Your task to perform on an android device: Go to network settings Image 0: 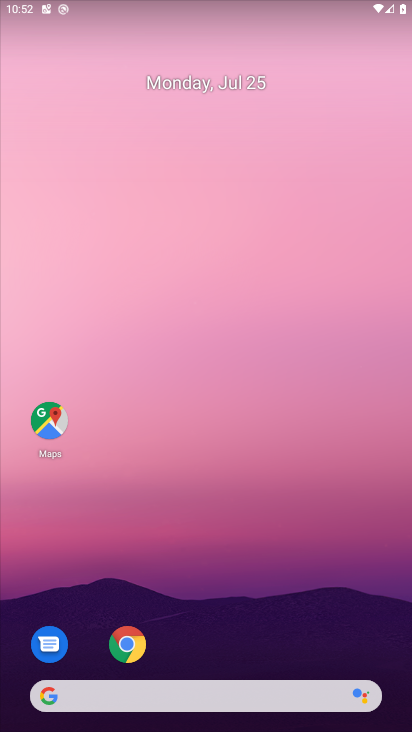
Step 0: drag from (248, 614) to (358, 111)
Your task to perform on an android device: Go to network settings Image 1: 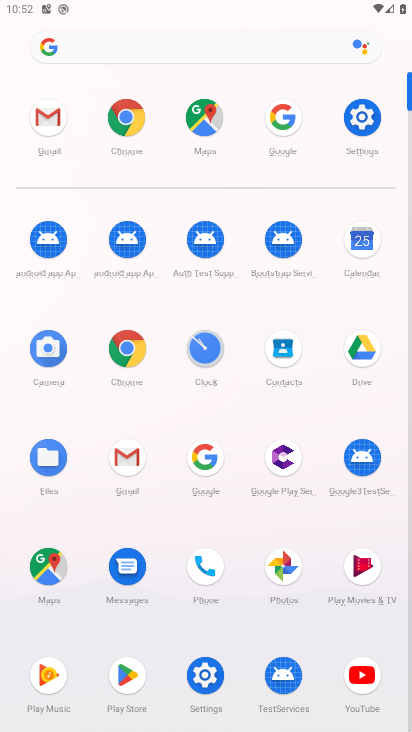
Step 1: click (198, 675)
Your task to perform on an android device: Go to network settings Image 2: 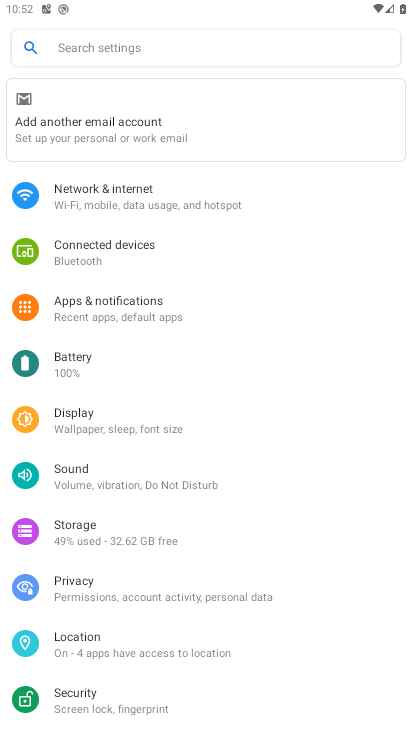
Step 2: click (141, 199)
Your task to perform on an android device: Go to network settings Image 3: 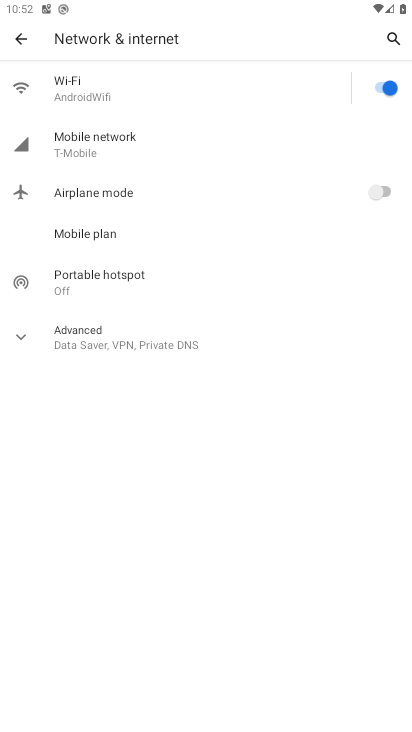
Step 3: task complete